Your task to perform on an android device: turn on the 12-hour format for clock Image 0: 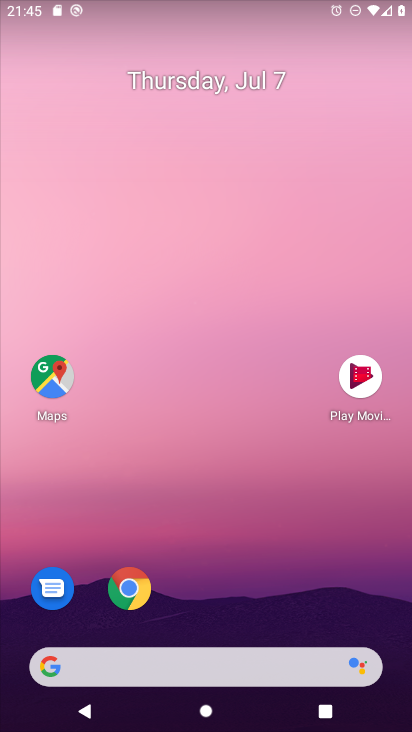
Step 0: drag from (261, 580) to (230, 207)
Your task to perform on an android device: turn on the 12-hour format for clock Image 1: 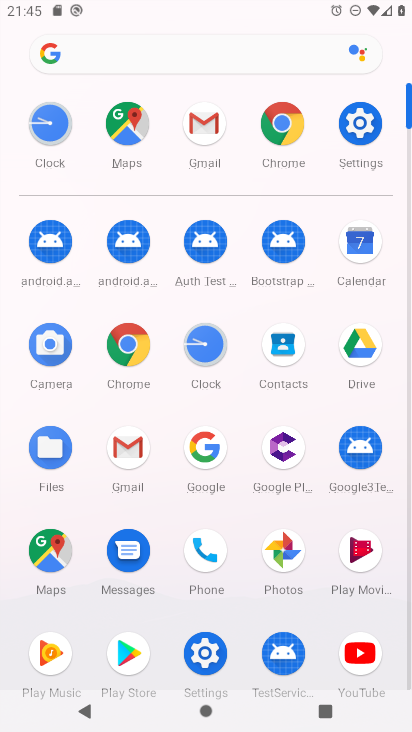
Step 1: click (195, 339)
Your task to perform on an android device: turn on the 12-hour format for clock Image 2: 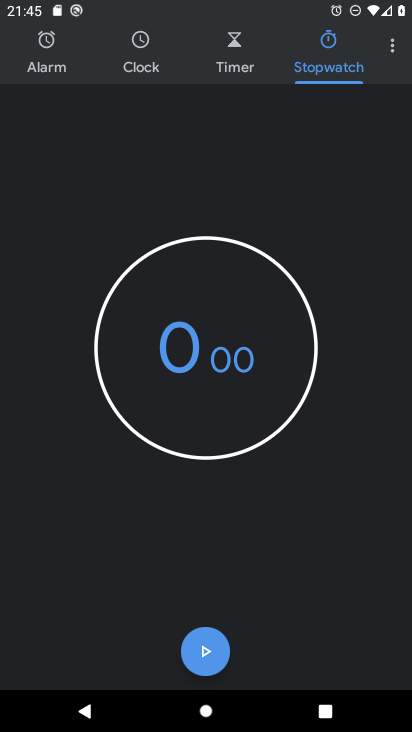
Step 2: click (400, 50)
Your task to perform on an android device: turn on the 12-hour format for clock Image 3: 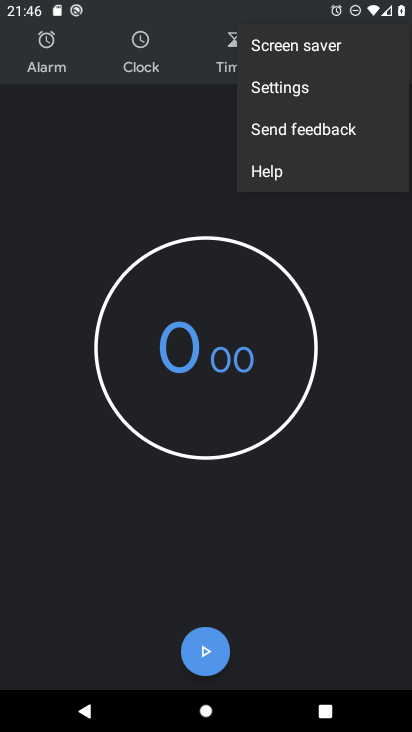
Step 3: click (328, 91)
Your task to perform on an android device: turn on the 12-hour format for clock Image 4: 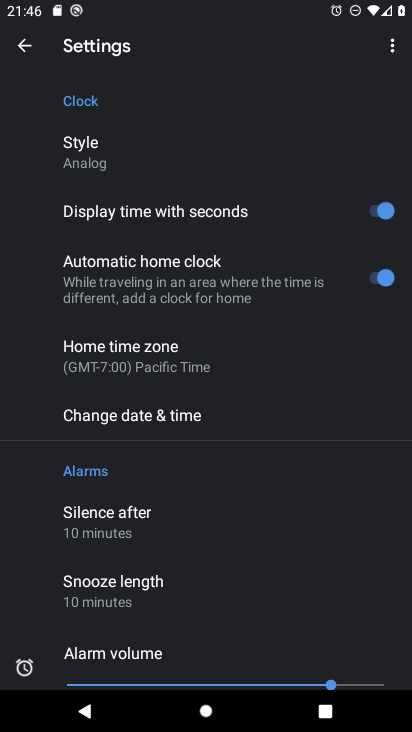
Step 4: drag from (217, 562) to (274, 673)
Your task to perform on an android device: turn on the 12-hour format for clock Image 5: 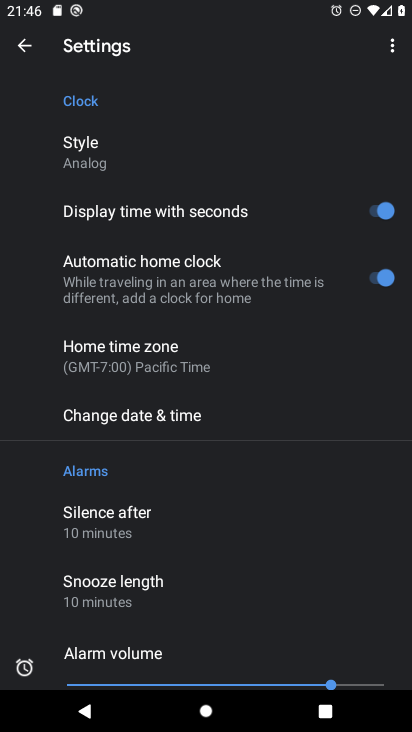
Step 5: drag from (223, 551) to (280, 162)
Your task to perform on an android device: turn on the 12-hour format for clock Image 6: 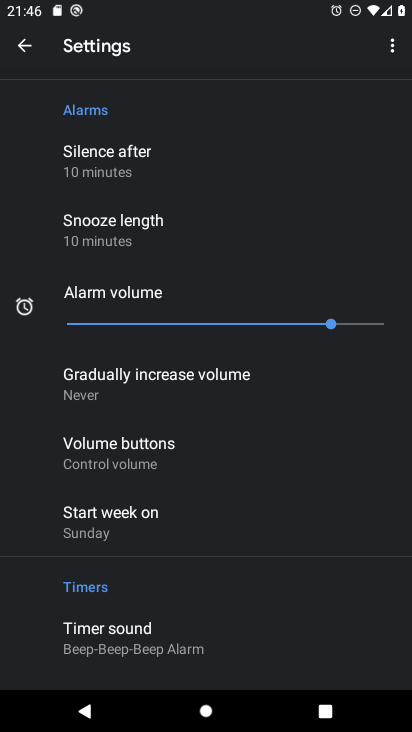
Step 6: drag from (233, 556) to (245, 617)
Your task to perform on an android device: turn on the 12-hour format for clock Image 7: 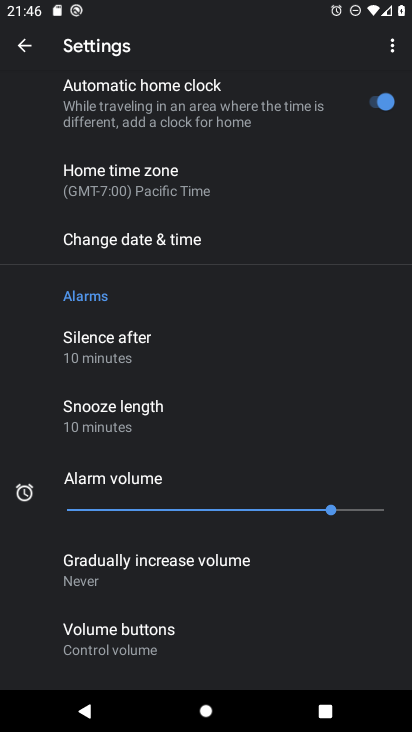
Step 7: drag from (230, 209) to (267, 584)
Your task to perform on an android device: turn on the 12-hour format for clock Image 8: 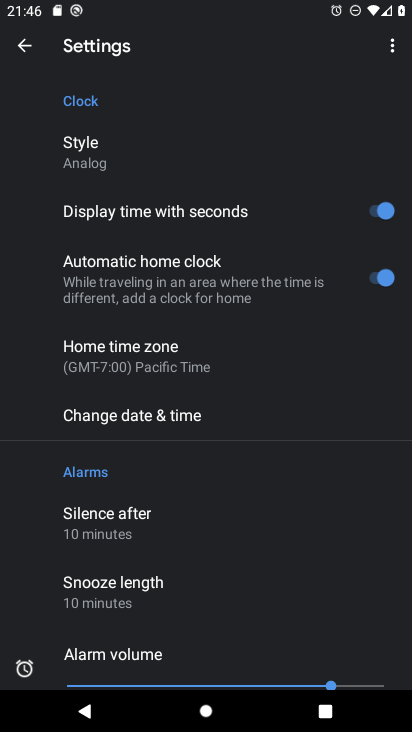
Step 8: click (197, 417)
Your task to perform on an android device: turn on the 12-hour format for clock Image 9: 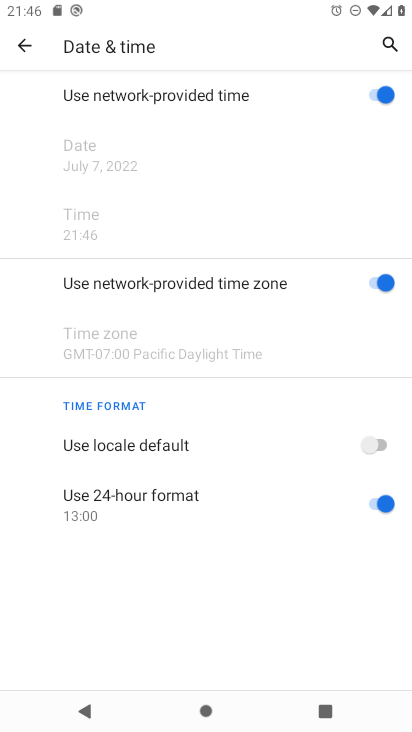
Step 9: task complete